Your task to perform on an android device: add a label to a message in the gmail app Image 0: 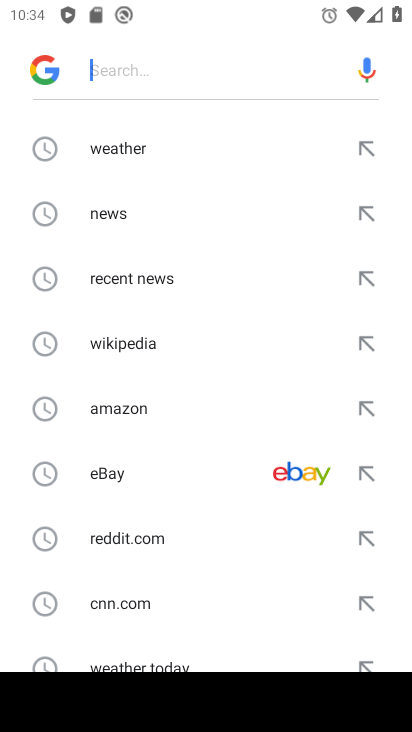
Step 0: press home button
Your task to perform on an android device: add a label to a message in the gmail app Image 1: 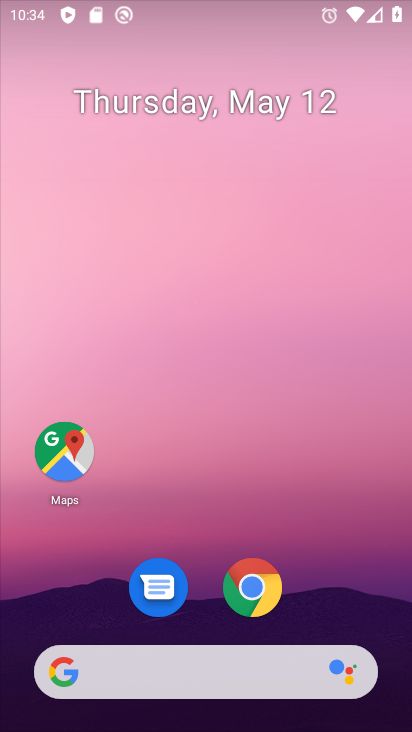
Step 1: drag from (325, 549) to (285, 71)
Your task to perform on an android device: add a label to a message in the gmail app Image 2: 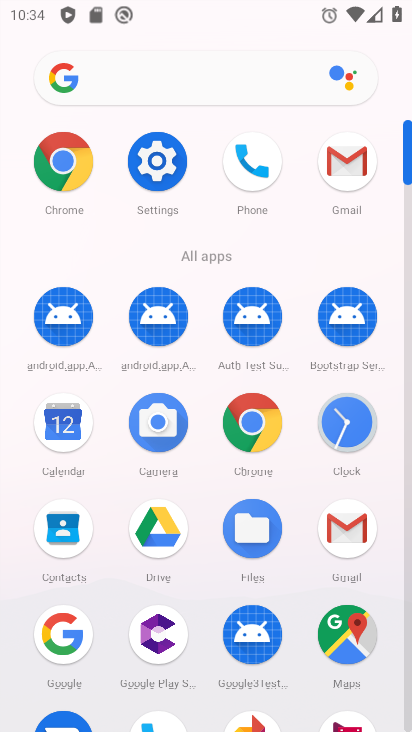
Step 2: click (346, 151)
Your task to perform on an android device: add a label to a message in the gmail app Image 3: 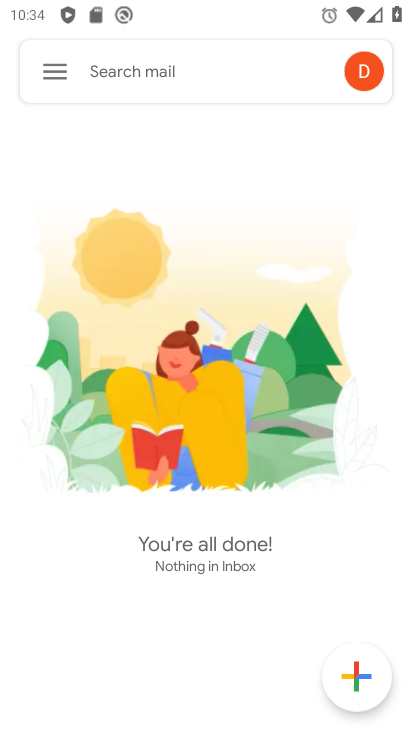
Step 3: click (41, 68)
Your task to perform on an android device: add a label to a message in the gmail app Image 4: 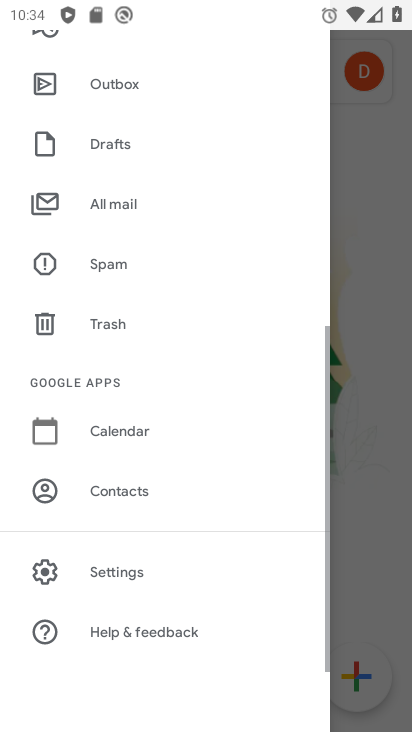
Step 4: task complete